Your task to perform on an android device: turn on the 12-hour format for clock Image 0: 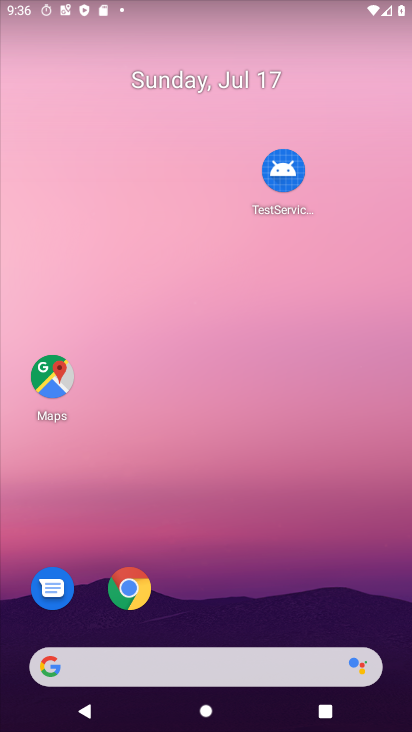
Step 0: drag from (240, 615) to (273, 300)
Your task to perform on an android device: turn on the 12-hour format for clock Image 1: 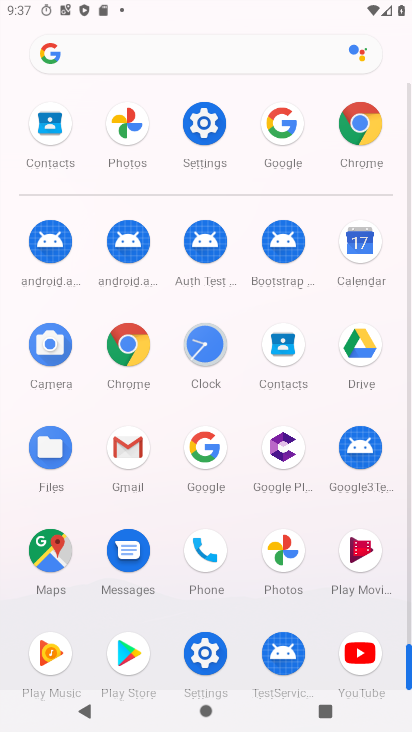
Step 1: click (213, 356)
Your task to perform on an android device: turn on the 12-hour format for clock Image 2: 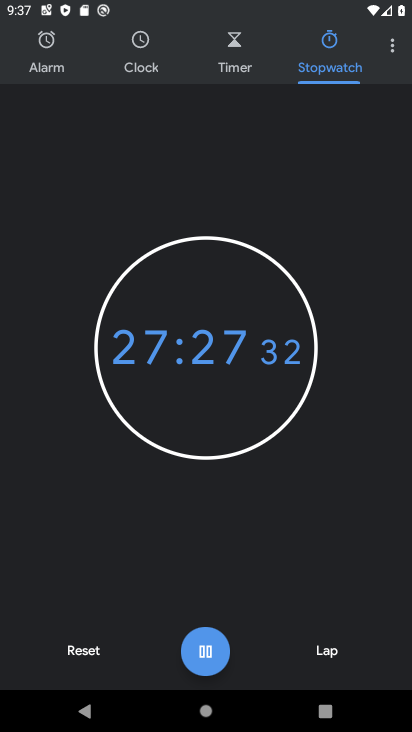
Step 2: click (400, 47)
Your task to perform on an android device: turn on the 12-hour format for clock Image 3: 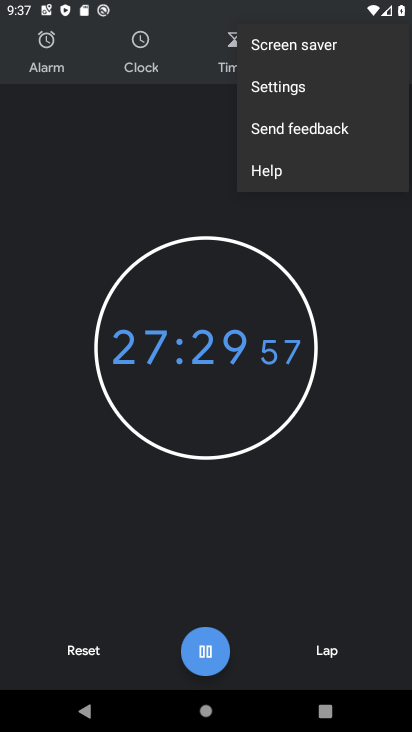
Step 3: click (280, 92)
Your task to perform on an android device: turn on the 12-hour format for clock Image 4: 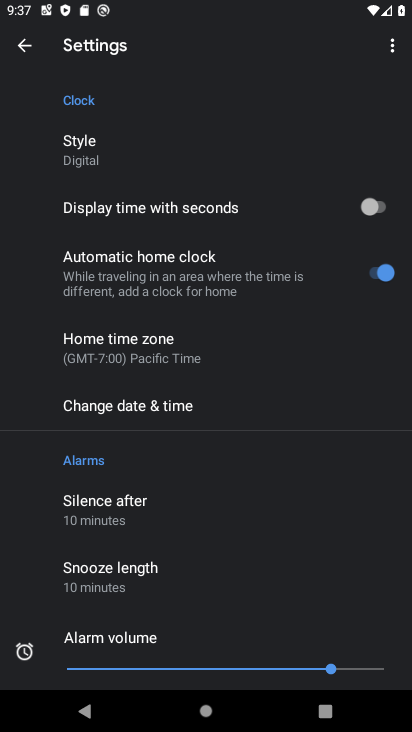
Step 4: click (164, 413)
Your task to perform on an android device: turn on the 12-hour format for clock Image 5: 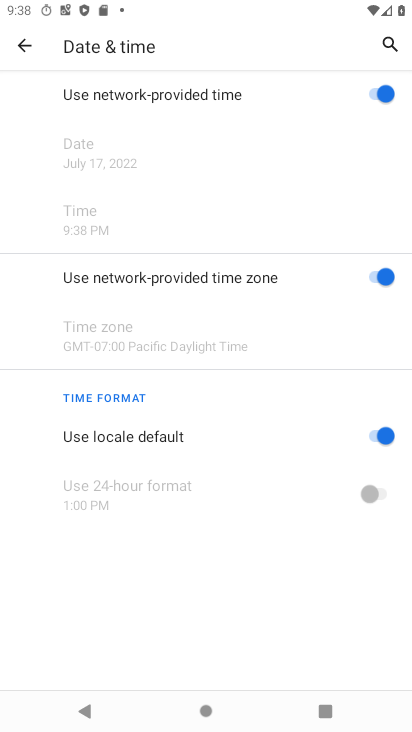
Step 5: task complete